Your task to perform on an android device: Go to Amazon Image 0: 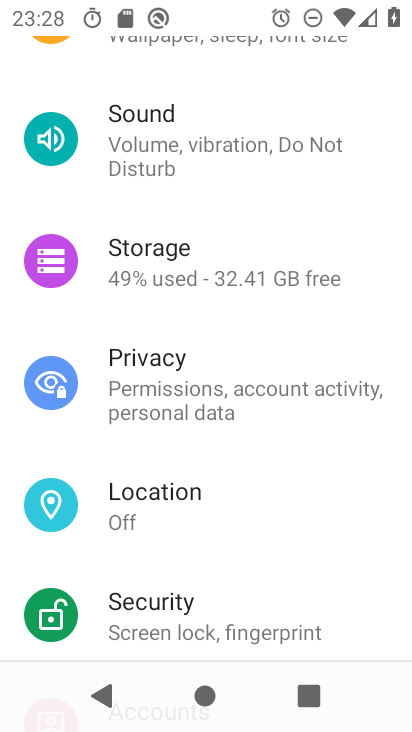
Step 0: press home button
Your task to perform on an android device: Go to Amazon Image 1: 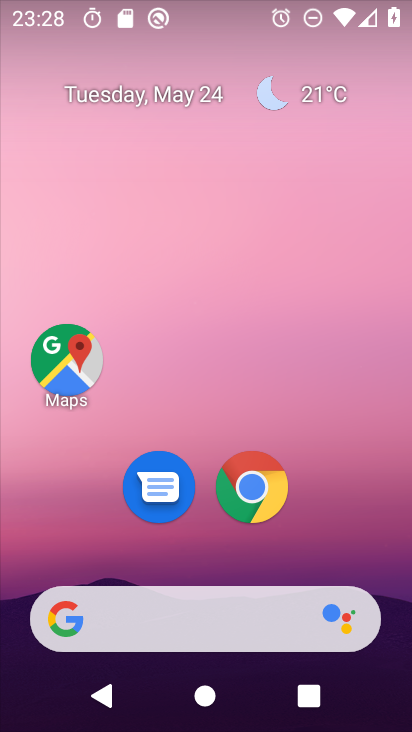
Step 1: click (252, 499)
Your task to perform on an android device: Go to Amazon Image 2: 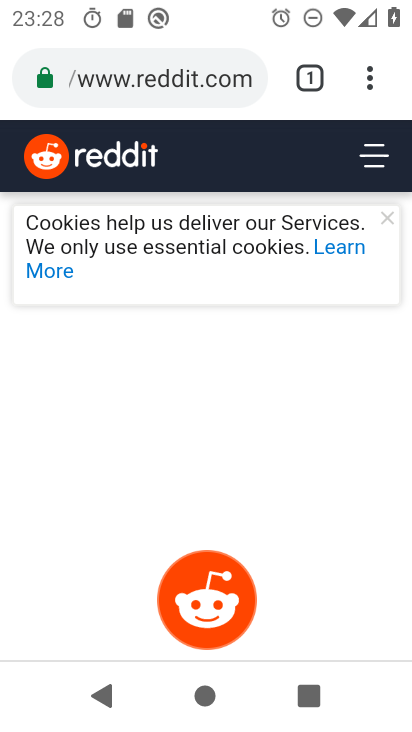
Step 2: click (104, 80)
Your task to perform on an android device: Go to Amazon Image 3: 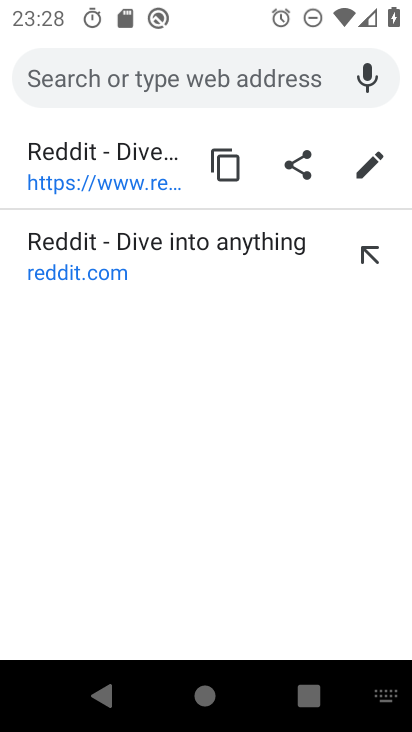
Step 3: type "amazon"
Your task to perform on an android device: Go to Amazon Image 4: 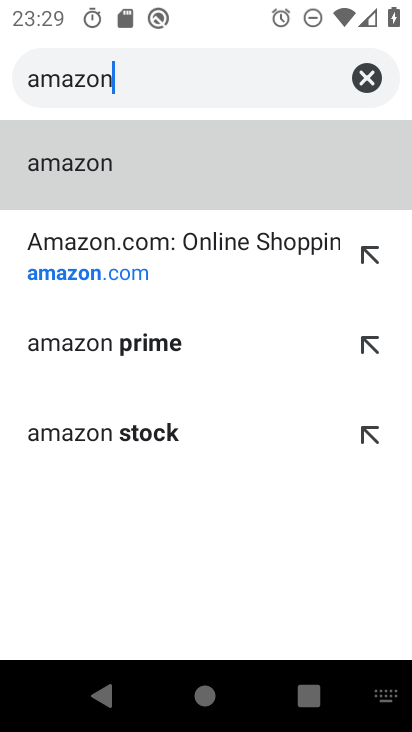
Step 4: click (111, 262)
Your task to perform on an android device: Go to Amazon Image 5: 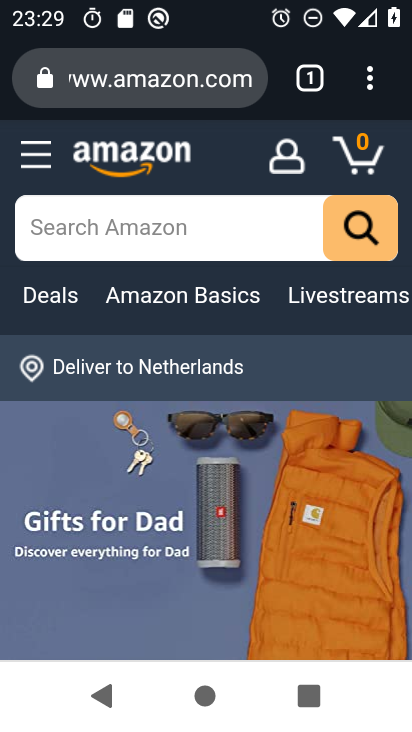
Step 5: task complete